Your task to perform on an android device: What's on my calendar tomorrow? Image 0: 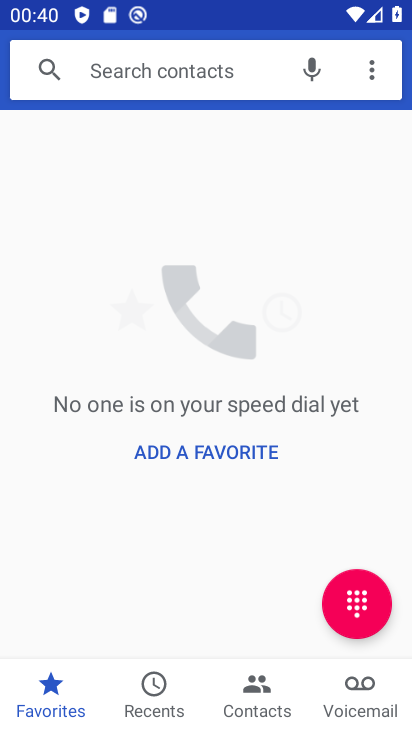
Step 0: press home button
Your task to perform on an android device: What's on my calendar tomorrow? Image 1: 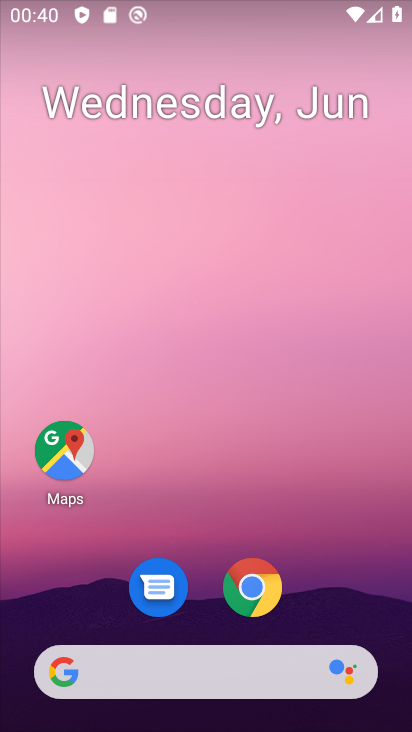
Step 1: drag from (345, 562) to (296, 140)
Your task to perform on an android device: What's on my calendar tomorrow? Image 2: 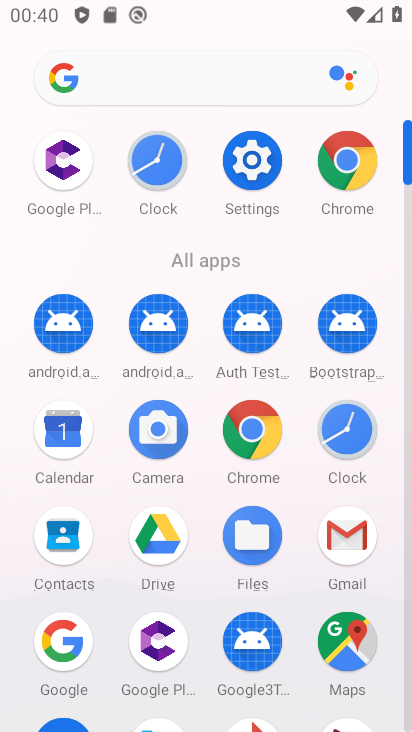
Step 2: click (72, 446)
Your task to perform on an android device: What's on my calendar tomorrow? Image 3: 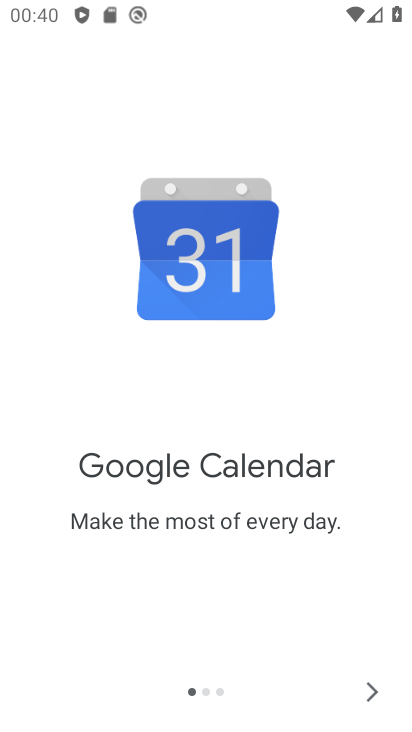
Step 3: click (370, 689)
Your task to perform on an android device: What's on my calendar tomorrow? Image 4: 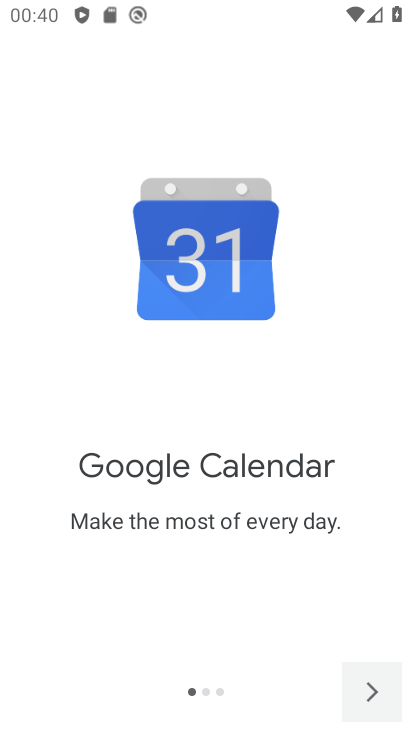
Step 4: click (370, 688)
Your task to perform on an android device: What's on my calendar tomorrow? Image 5: 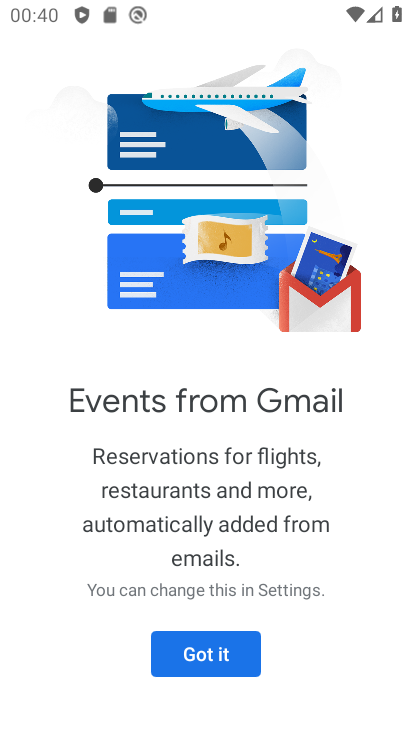
Step 5: click (210, 651)
Your task to perform on an android device: What's on my calendar tomorrow? Image 6: 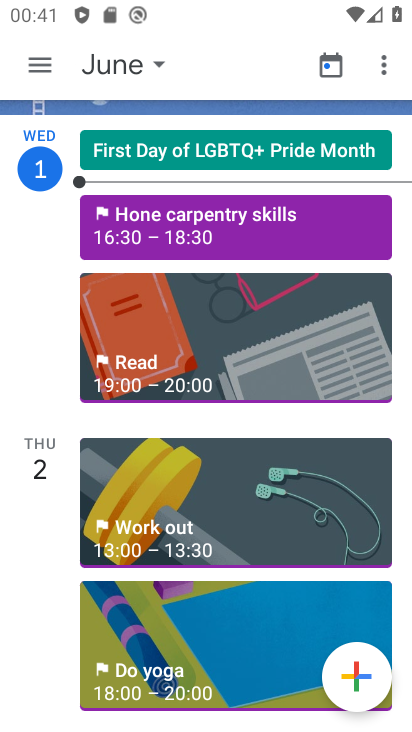
Step 6: click (141, 68)
Your task to perform on an android device: What's on my calendar tomorrow? Image 7: 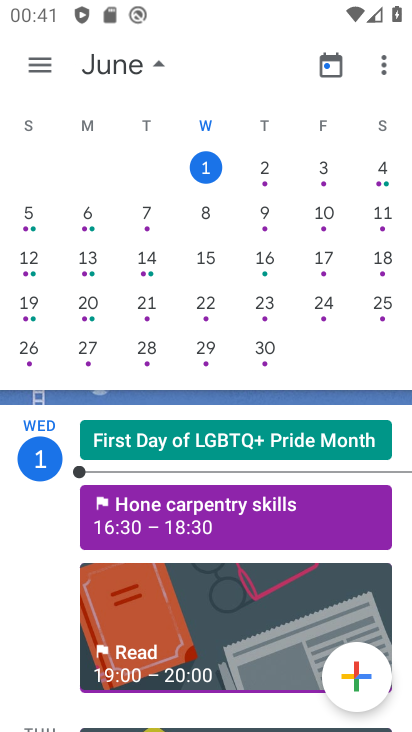
Step 7: click (262, 171)
Your task to perform on an android device: What's on my calendar tomorrow? Image 8: 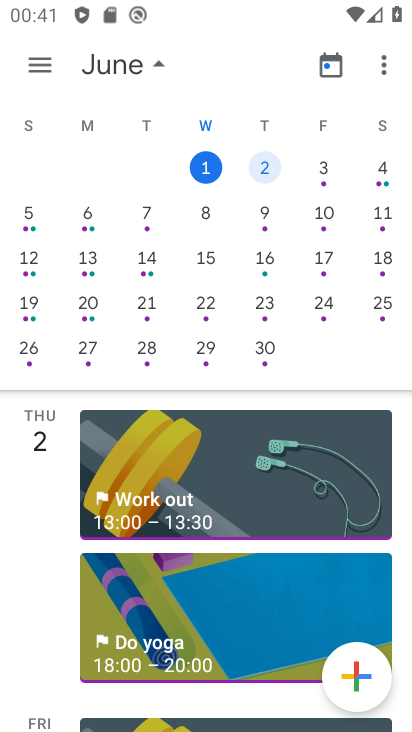
Step 8: click (261, 170)
Your task to perform on an android device: What's on my calendar tomorrow? Image 9: 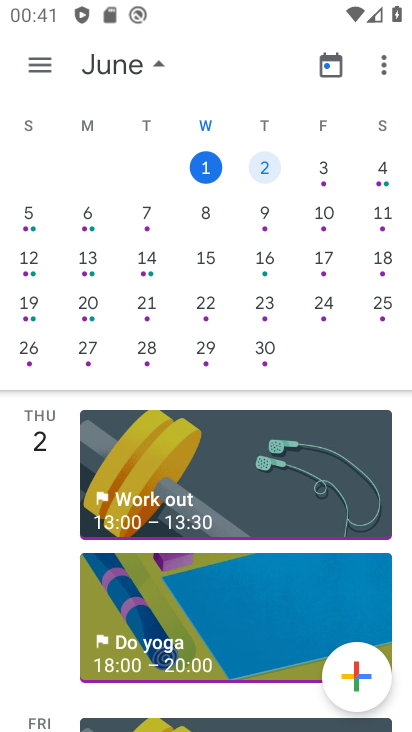
Step 9: task complete